Your task to perform on an android device: add a label to a message in the gmail app Image 0: 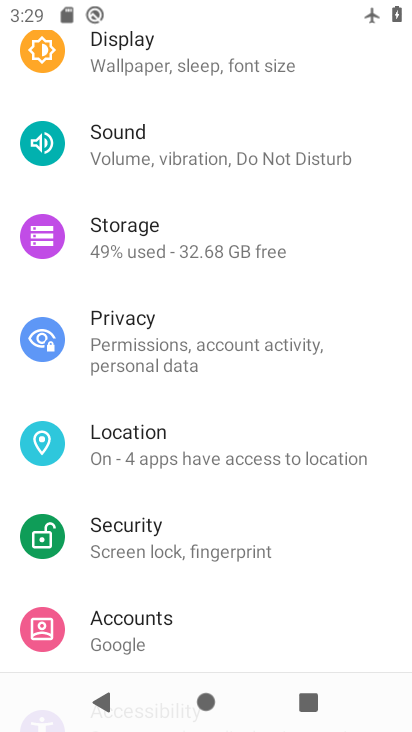
Step 0: press home button
Your task to perform on an android device: add a label to a message in the gmail app Image 1: 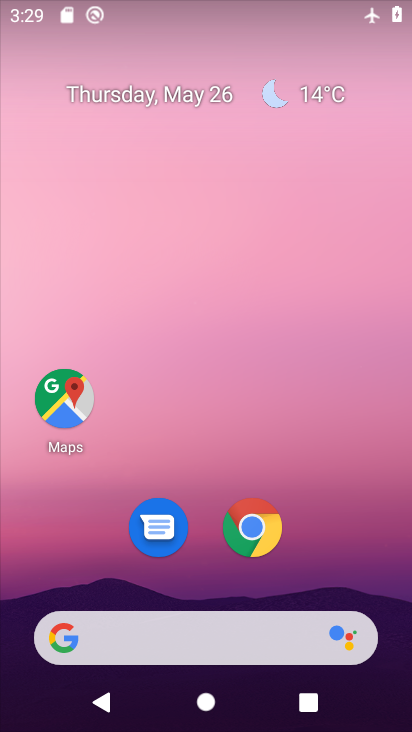
Step 1: drag from (380, 575) to (253, 209)
Your task to perform on an android device: add a label to a message in the gmail app Image 2: 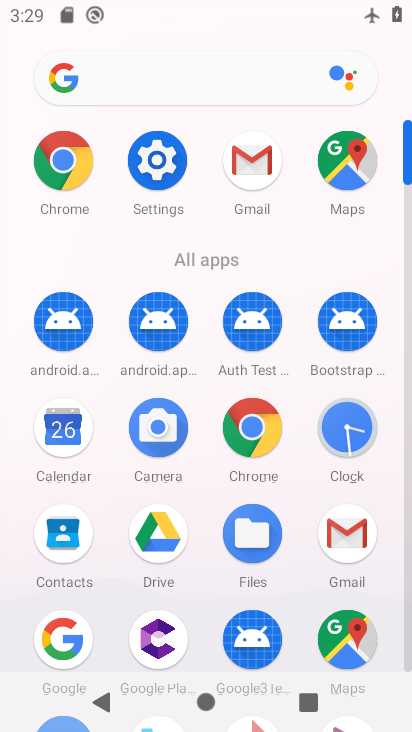
Step 2: click (260, 170)
Your task to perform on an android device: add a label to a message in the gmail app Image 3: 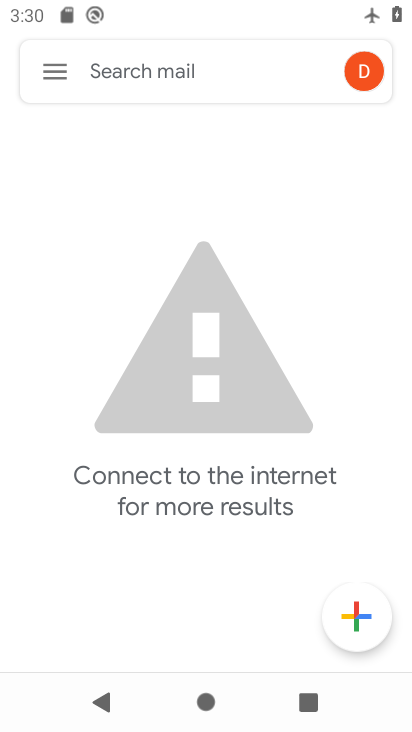
Step 3: click (59, 86)
Your task to perform on an android device: add a label to a message in the gmail app Image 4: 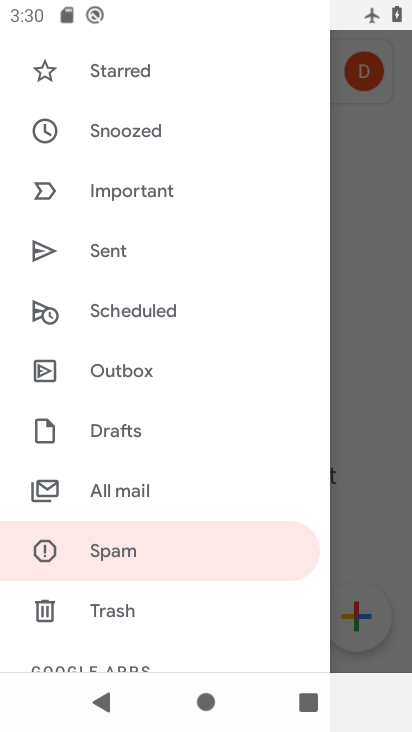
Step 4: click (134, 493)
Your task to perform on an android device: add a label to a message in the gmail app Image 5: 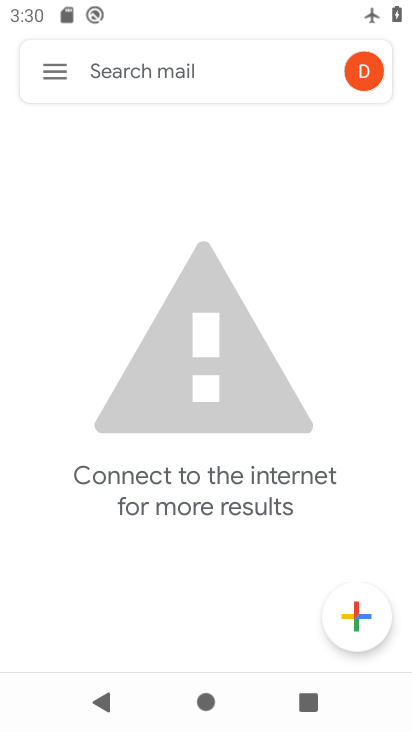
Step 5: task complete